Your task to perform on an android device: allow notifications from all sites in the chrome app Image 0: 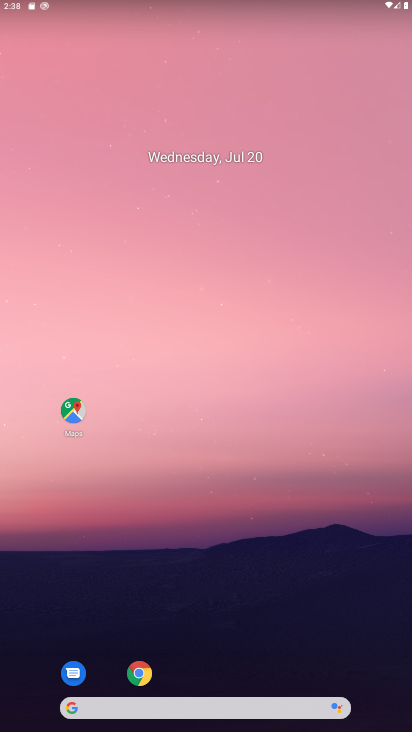
Step 0: drag from (209, 652) to (244, 110)
Your task to perform on an android device: allow notifications from all sites in the chrome app Image 1: 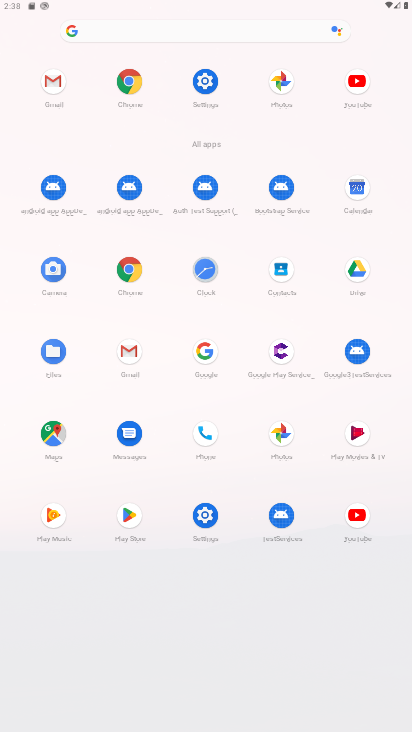
Step 1: click (132, 269)
Your task to perform on an android device: allow notifications from all sites in the chrome app Image 2: 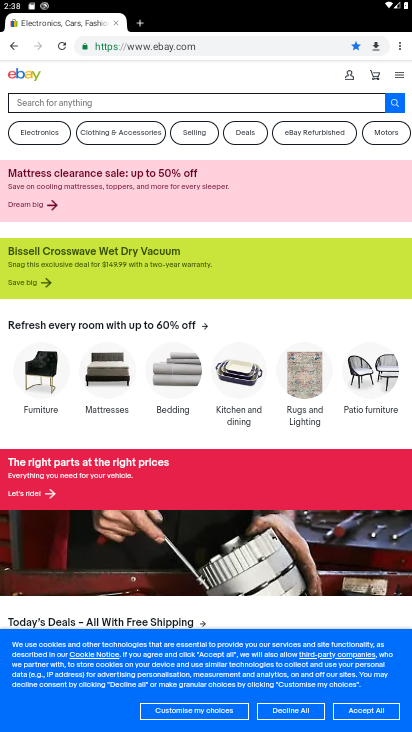
Step 2: click (401, 40)
Your task to perform on an android device: allow notifications from all sites in the chrome app Image 3: 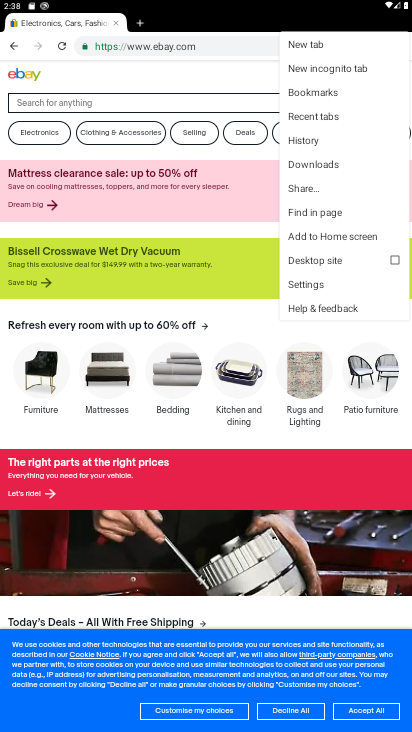
Step 3: click (321, 286)
Your task to perform on an android device: allow notifications from all sites in the chrome app Image 4: 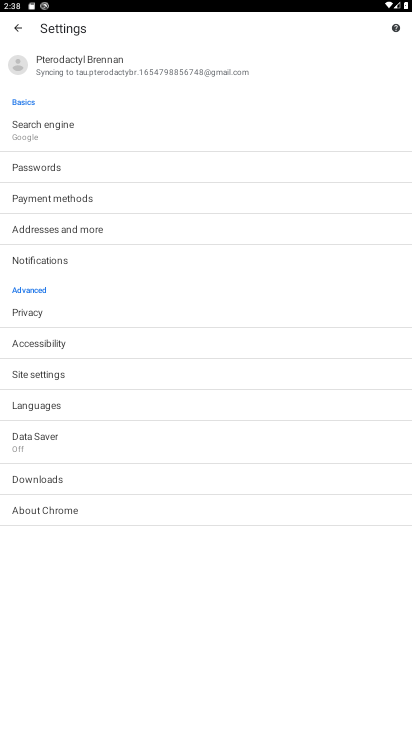
Step 4: click (55, 260)
Your task to perform on an android device: allow notifications from all sites in the chrome app Image 5: 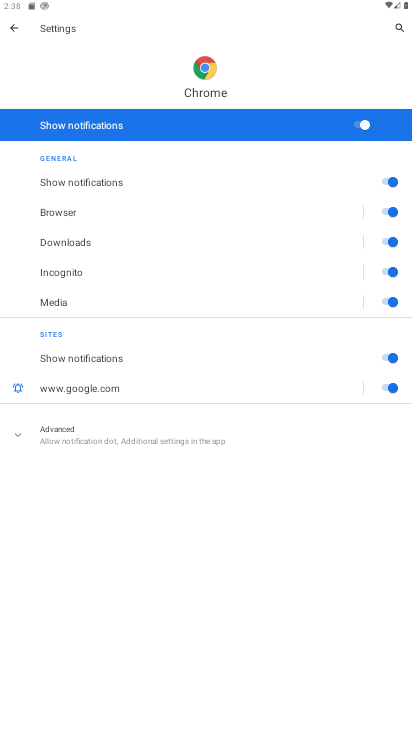
Step 5: task complete